Your task to perform on an android device: Search for seafood restaurants on Google Maps Image 0: 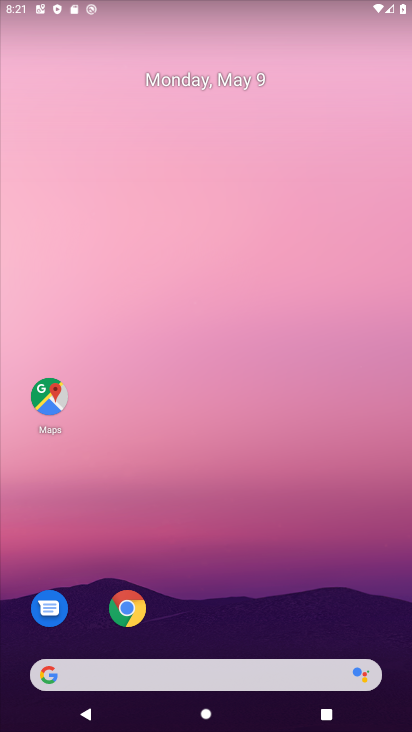
Step 0: click (53, 399)
Your task to perform on an android device: Search for seafood restaurants on Google Maps Image 1: 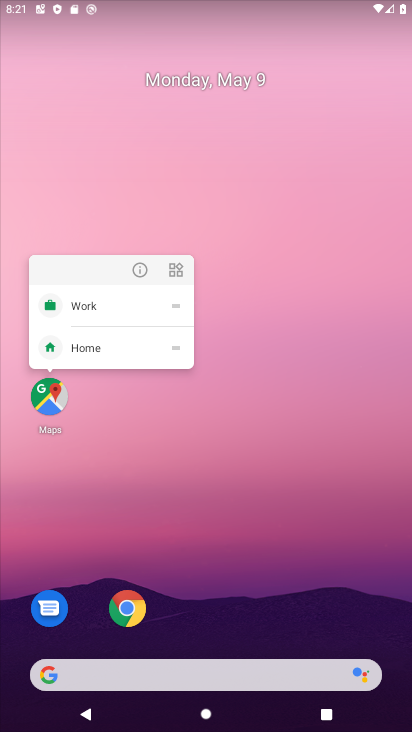
Step 1: click (50, 402)
Your task to perform on an android device: Search for seafood restaurants on Google Maps Image 2: 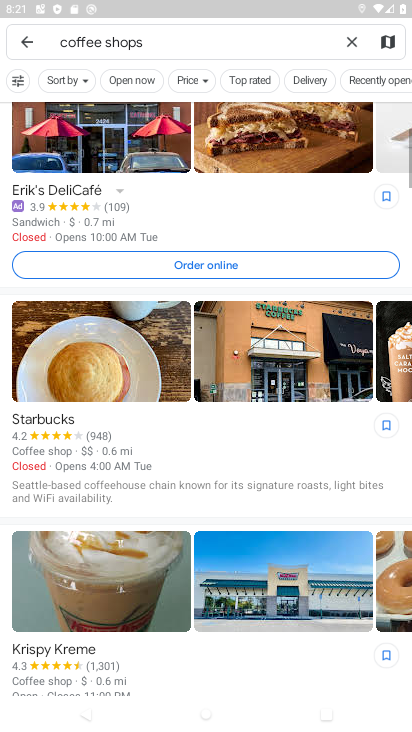
Step 2: click (352, 38)
Your task to perform on an android device: Search for seafood restaurants on Google Maps Image 3: 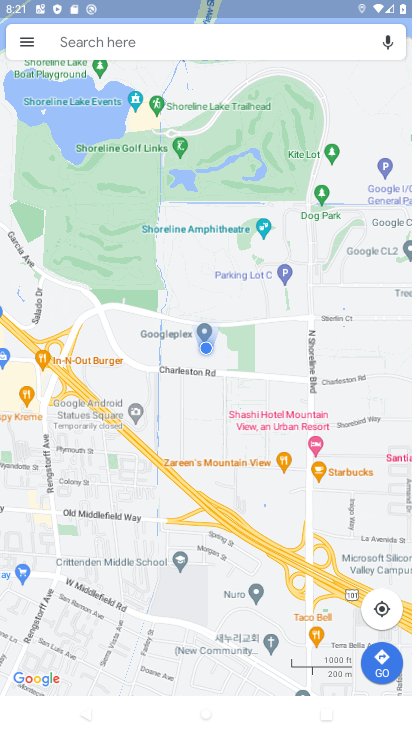
Step 3: click (270, 46)
Your task to perform on an android device: Search for seafood restaurants on Google Maps Image 4: 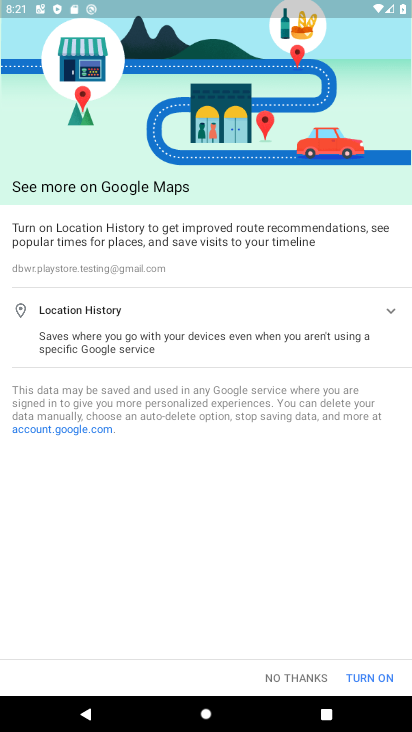
Step 4: click (289, 672)
Your task to perform on an android device: Search for seafood restaurants on Google Maps Image 5: 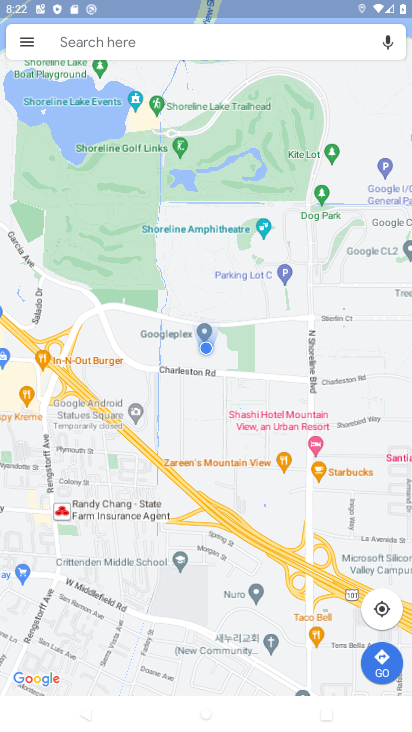
Step 5: click (226, 47)
Your task to perform on an android device: Search for seafood restaurants on Google Maps Image 6: 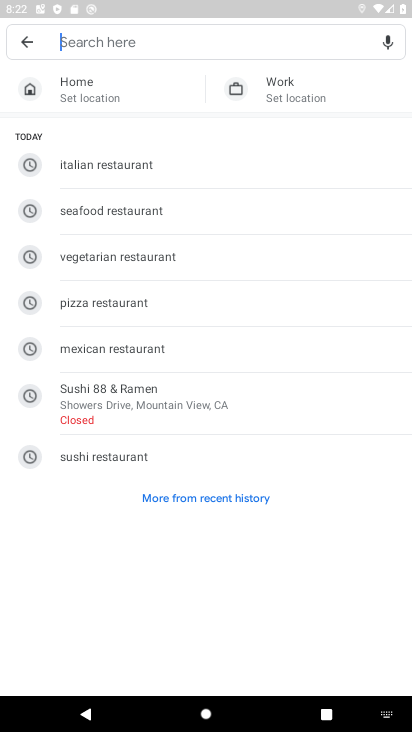
Step 6: type "seafood restaurants"
Your task to perform on an android device: Search for seafood restaurants on Google Maps Image 7: 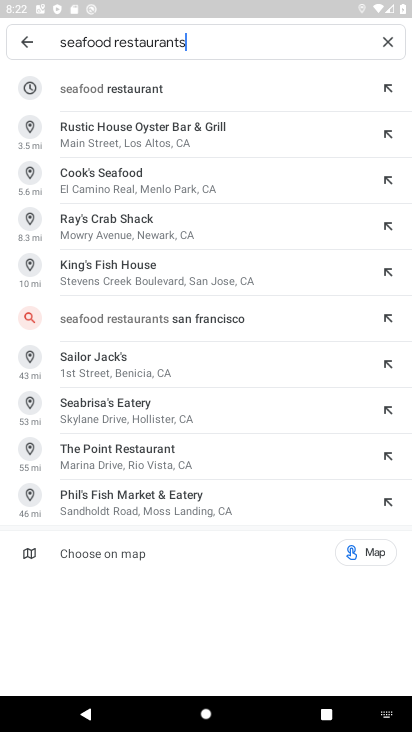
Step 7: click (177, 93)
Your task to perform on an android device: Search for seafood restaurants on Google Maps Image 8: 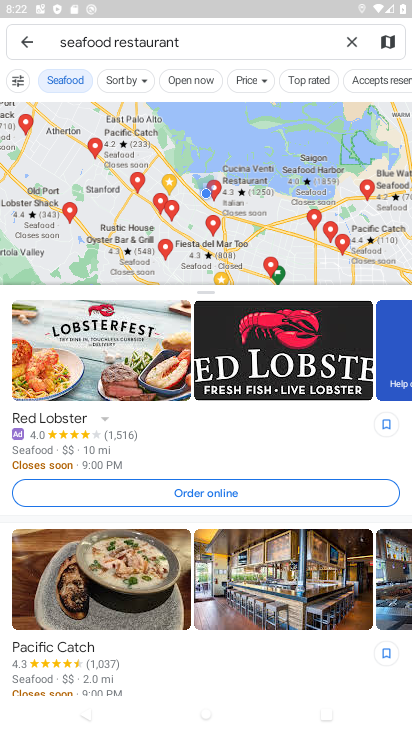
Step 8: task complete